Your task to perform on an android device: Open maps Image 0: 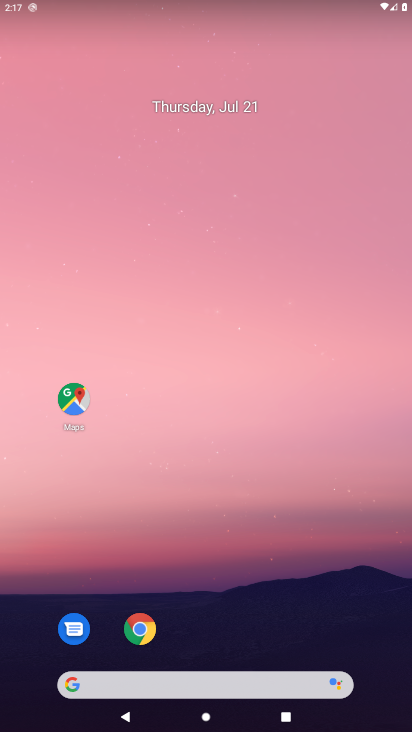
Step 0: click (116, 400)
Your task to perform on an android device: Open maps Image 1: 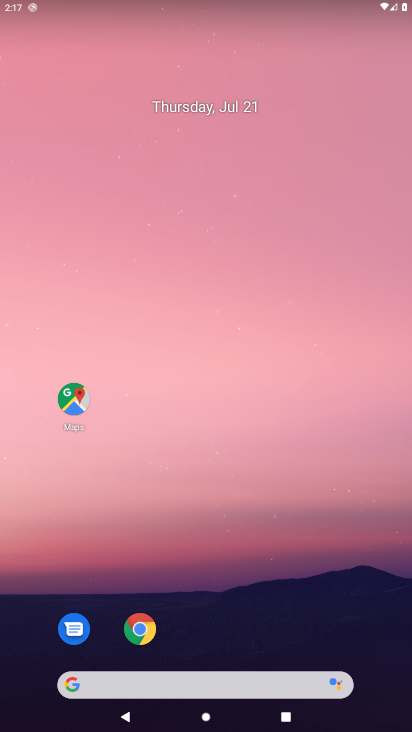
Step 1: click (75, 419)
Your task to perform on an android device: Open maps Image 2: 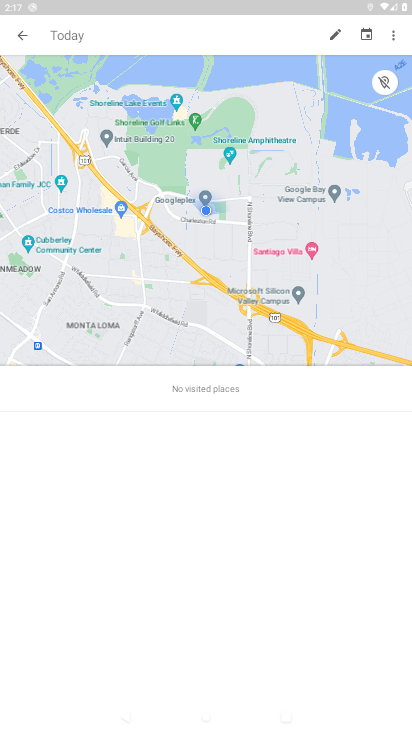
Step 2: click (25, 43)
Your task to perform on an android device: Open maps Image 3: 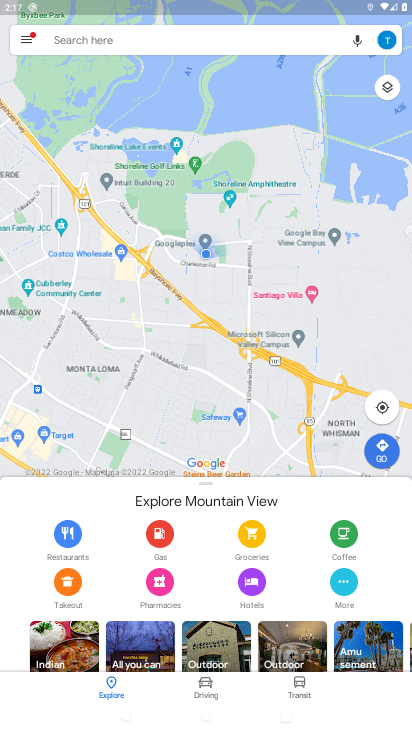
Step 3: task complete